Your task to perform on an android device: Open eBay Image 0: 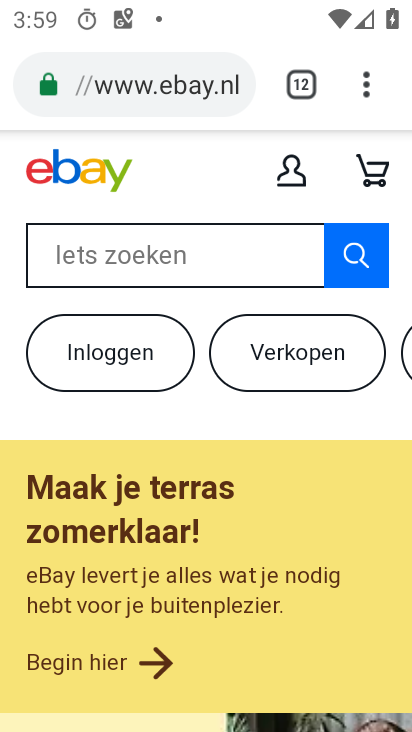
Step 0: task complete